Your task to perform on an android device: Show me popular videos on Youtube Image 0: 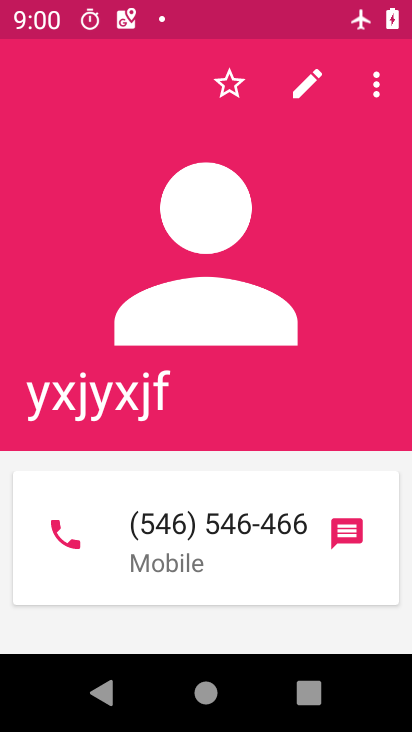
Step 0: press home button
Your task to perform on an android device: Show me popular videos on Youtube Image 1: 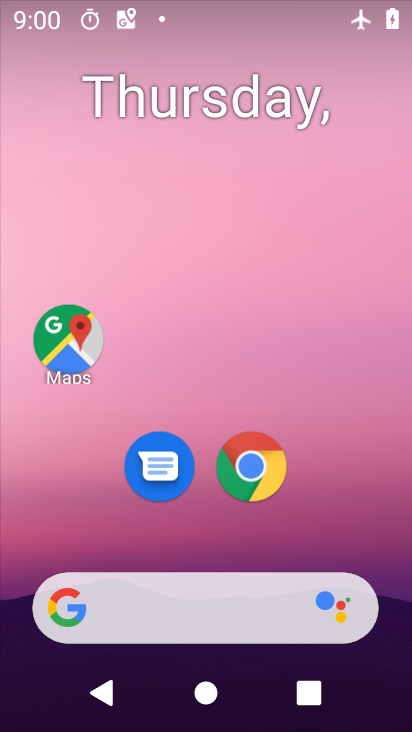
Step 1: drag from (329, 562) to (300, 169)
Your task to perform on an android device: Show me popular videos on Youtube Image 2: 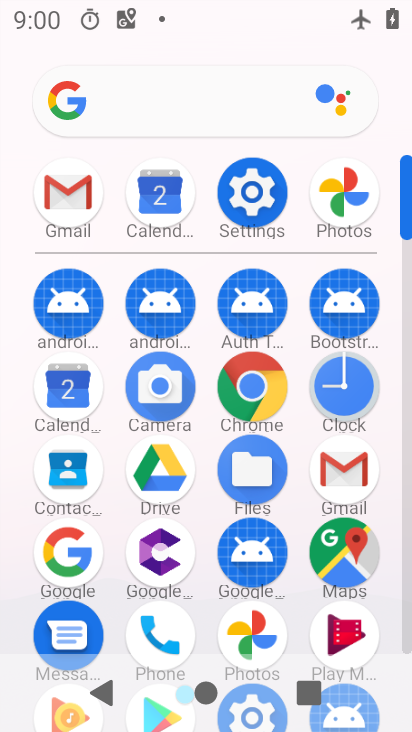
Step 2: drag from (111, 596) to (127, 58)
Your task to perform on an android device: Show me popular videos on Youtube Image 3: 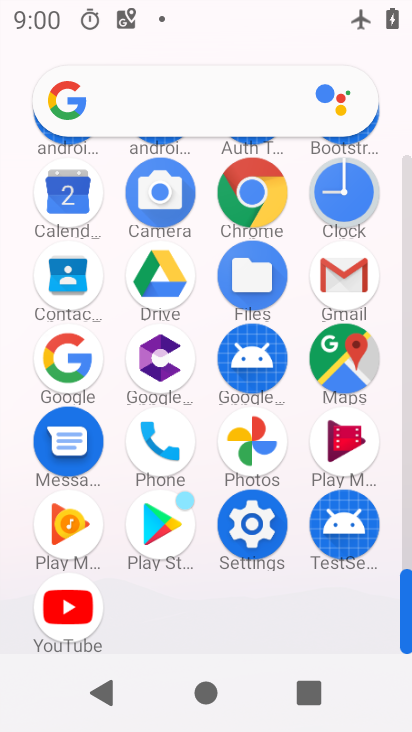
Step 3: click (59, 608)
Your task to perform on an android device: Show me popular videos on Youtube Image 4: 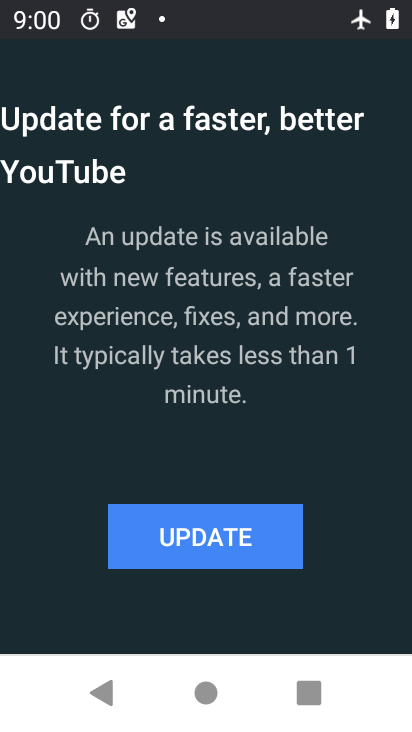
Step 4: click (192, 526)
Your task to perform on an android device: Show me popular videos on Youtube Image 5: 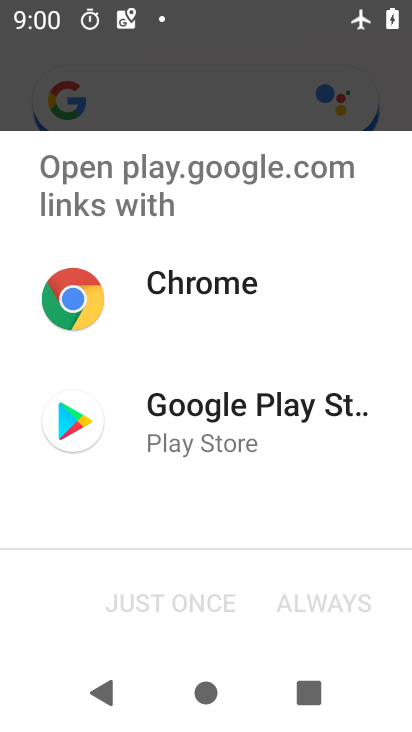
Step 5: click (189, 425)
Your task to perform on an android device: Show me popular videos on Youtube Image 6: 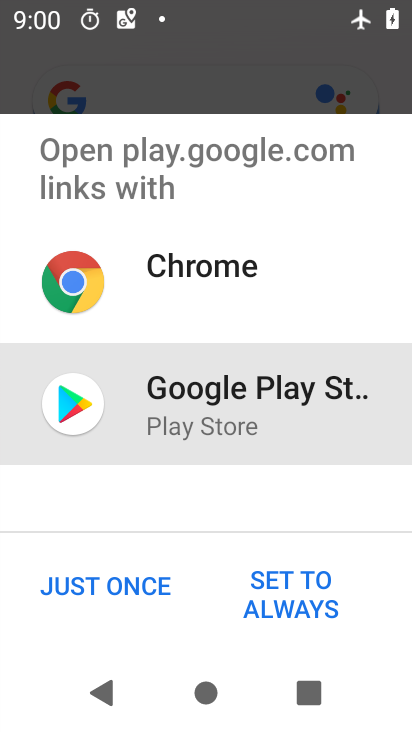
Step 6: click (116, 577)
Your task to perform on an android device: Show me popular videos on Youtube Image 7: 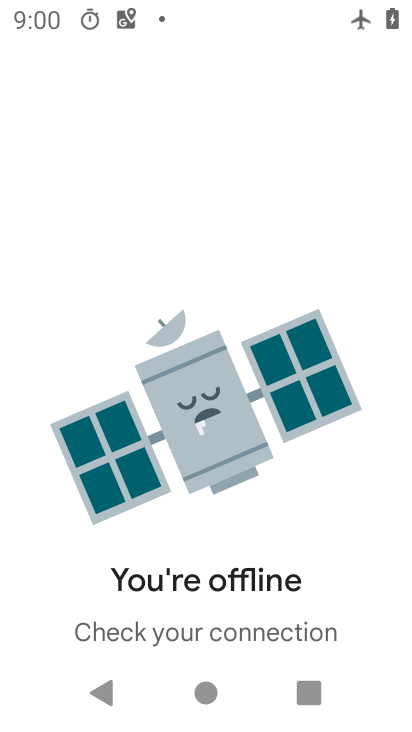
Step 7: drag from (282, 0) to (231, 730)
Your task to perform on an android device: Show me popular videos on Youtube Image 8: 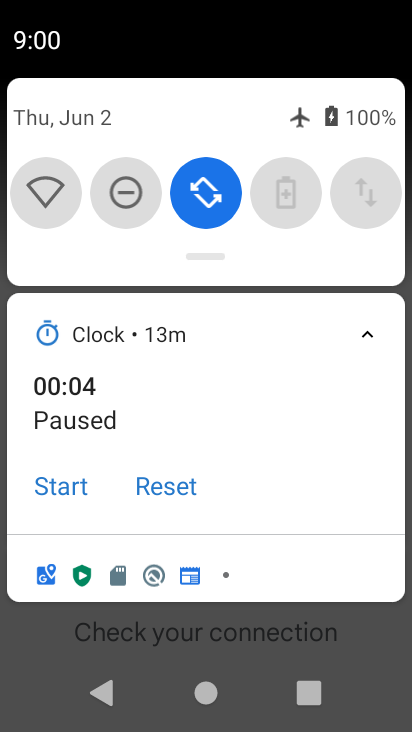
Step 8: drag from (197, 306) to (211, 716)
Your task to perform on an android device: Show me popular videos on Youtube Image 9: 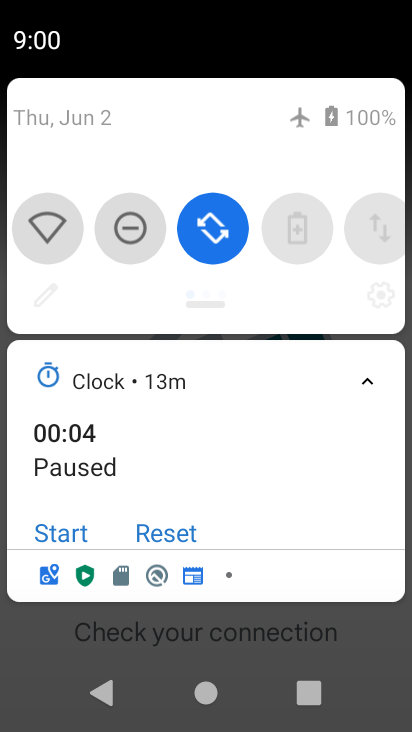
Step 9: drag from (329, 432) to (18, 394)
Your task to perform on an android device: Show me popular videos on Youtube Image 10: 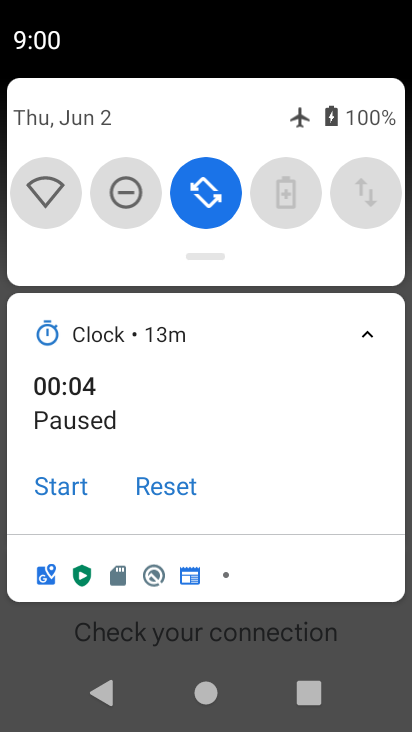
Step 10: drag from (198, 272) to (139, 718)
Your task to perform on an android device: Show me popular videos on Youtube Image 11: 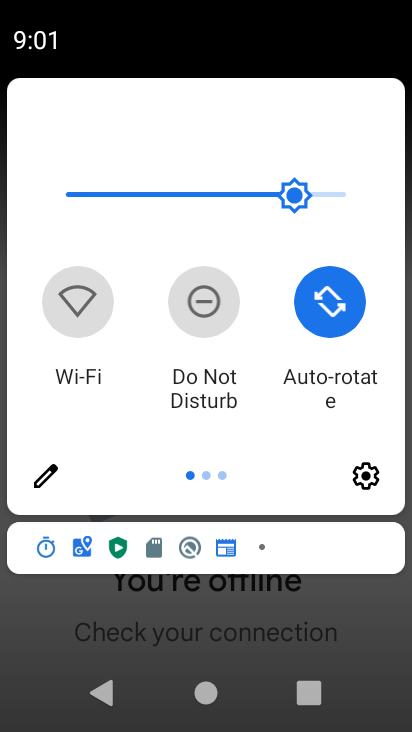
Step 11: drag from (314, 402) to (23, 293)
Your task to perform on an android device: Show me popular videos on Youtube Image 12: 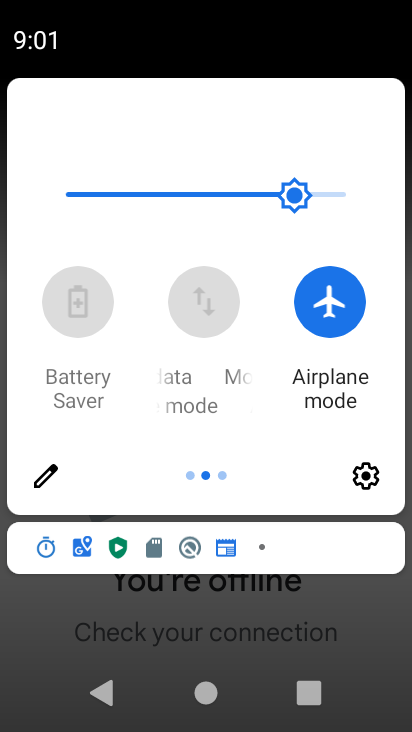
Step 12: click (328, 282)
Your task to perform on an android device: Show me popular videos on Youtube Image 13: 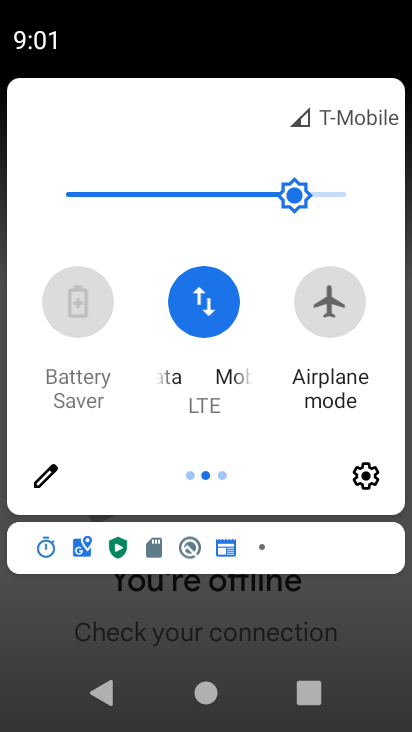
Step 13: click (198, 609)
Your task to perform on an android device: Show me popular videos on Youtube Image 14: 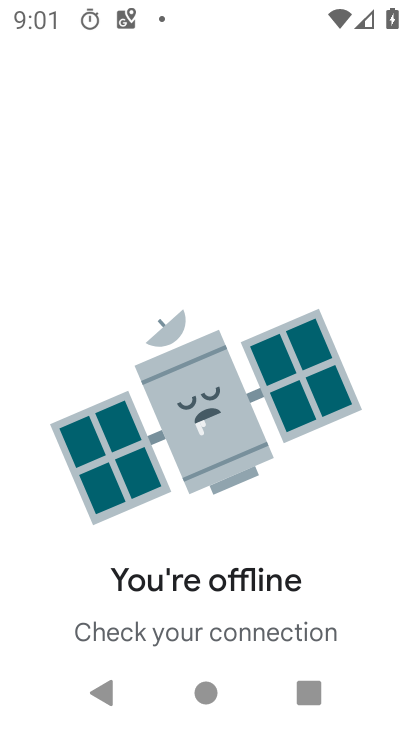
Step 14: drag from (221, 259) to (280, 617)
Your task to perform on an android device: Show me popular videos on Youtube Image 15: 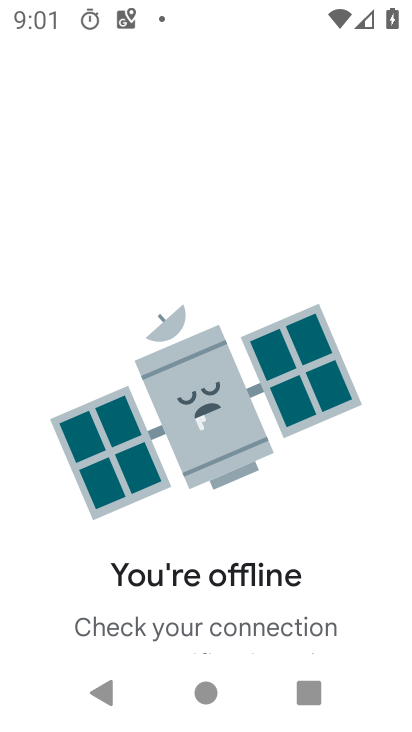
Step 15: click (107, 694)
Your task to perform on an android device: Show me popular videos on Youtube Image 16: 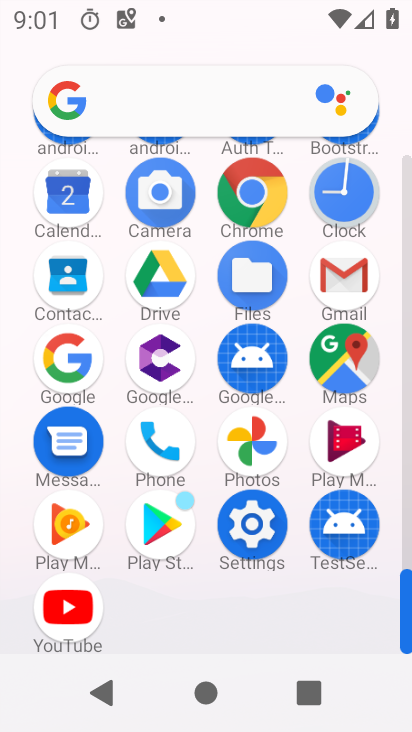
Step 16: click (48, 627)
Your task to perform on an android device: Show me popular videos on Youtube Image 17: 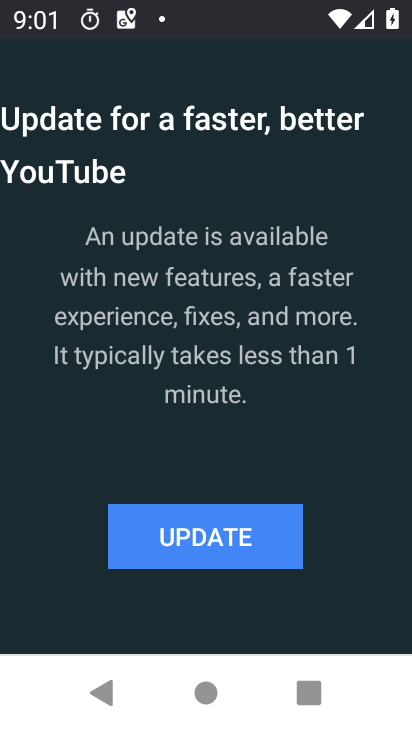
Step 17: click (198, 551)
Your task to perform on an android device: Show me popular videos on Youtube Image 18: 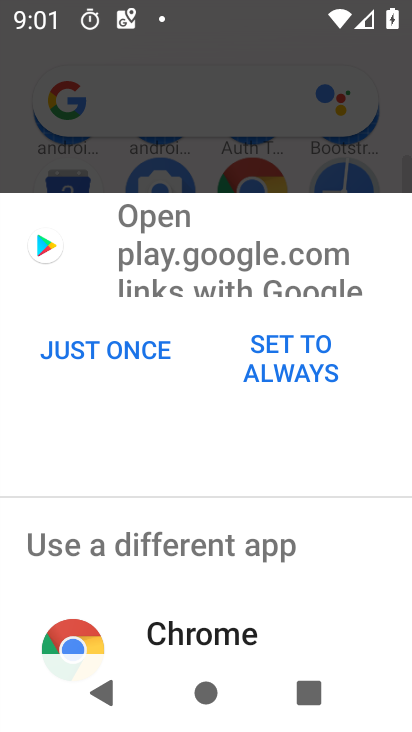
Step 18: click (137, 351)
Your task to perform on an android device: Show me popular videos on Youtube Image 19: 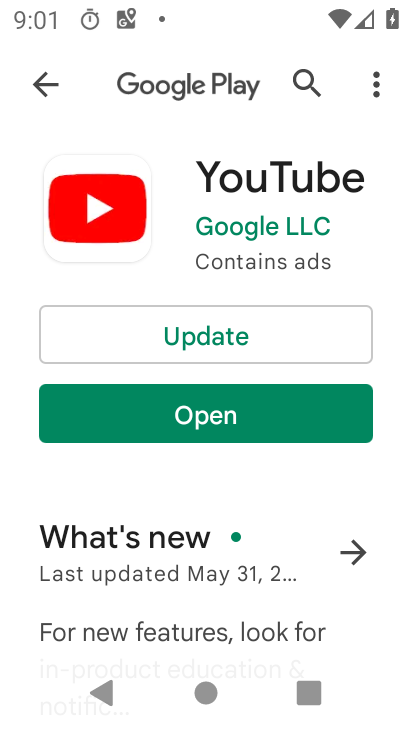
Step 19: click (189, 332)
Your task to perform on an android device: Show me popular videos on Youtube Image 20: 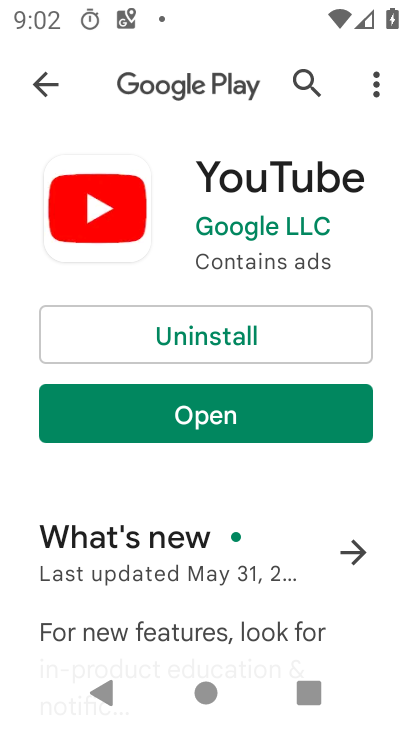
Step 20: click (197, 403)
Your task to perform on an android device: Show me popular videos on Youtube Image 21: 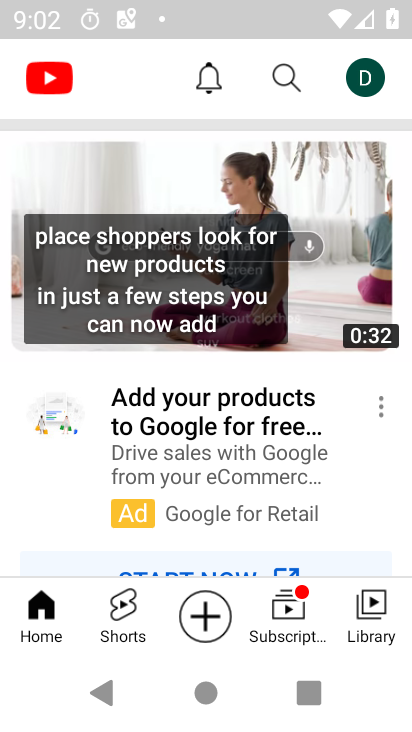
Step 21: drag from (381, 492) to (336, 696)
Your task to perform on an android device: Show me popular videos on Youtube Image 22: 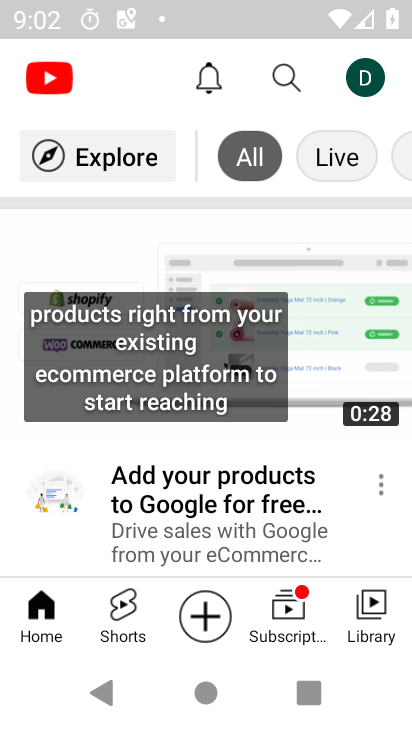
Step 22: click (125, 156)
Your task to perform on an android device: Show me popular videos on Youtube Image 23: 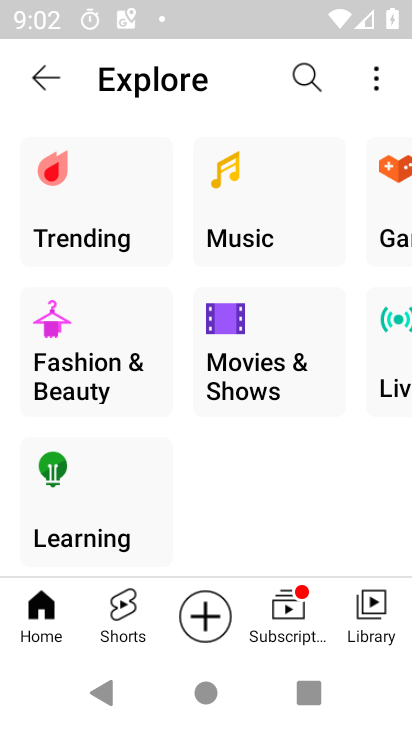
Step 23: click (106, 228)
Your task to perform on an android device: Show me popular videos on Youtube Image 24: 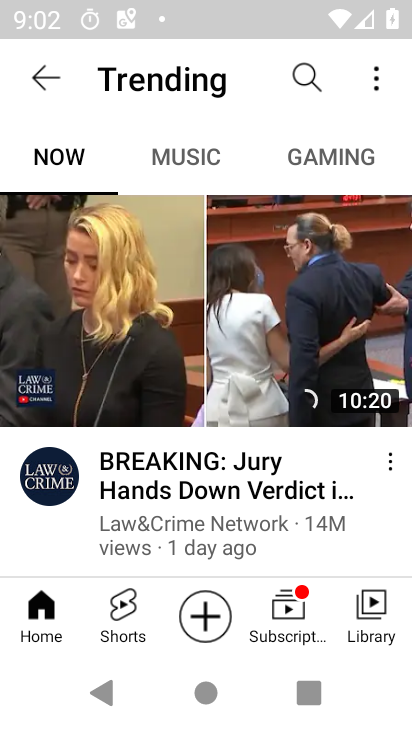
Step 24: task complete